Your task to perform on an android device: open a new tab in the chrome app Image 0: 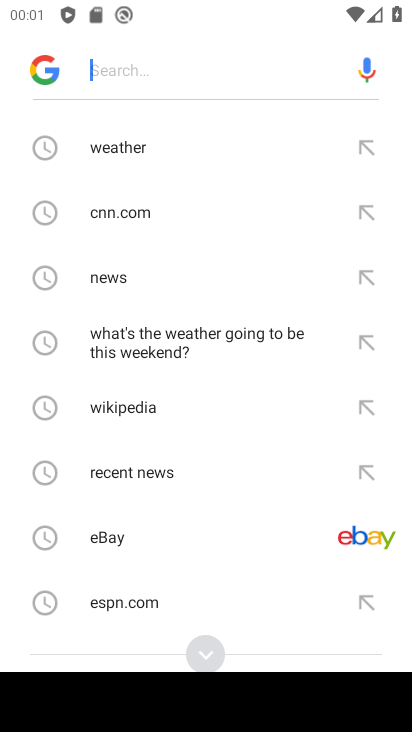
Step 0: press back button
Your task to perform on an android device: open a new tab in the chrome app Image 1: 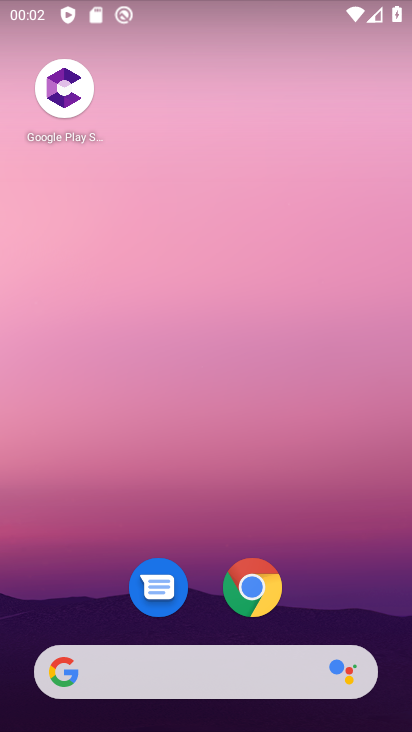
Step 1: click (265, 599)
Your task to perform on an android device: open a new tab in the chrome app Image 2: 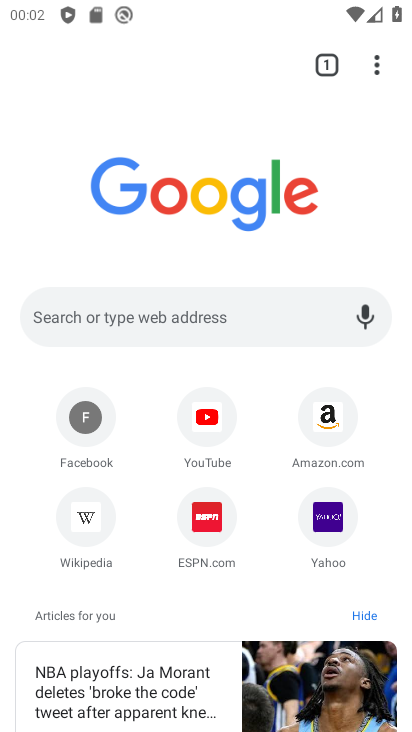
Step 2: click (377, 60)
Your task to perform on an android device: open a new tab in the chrome app Image 3: 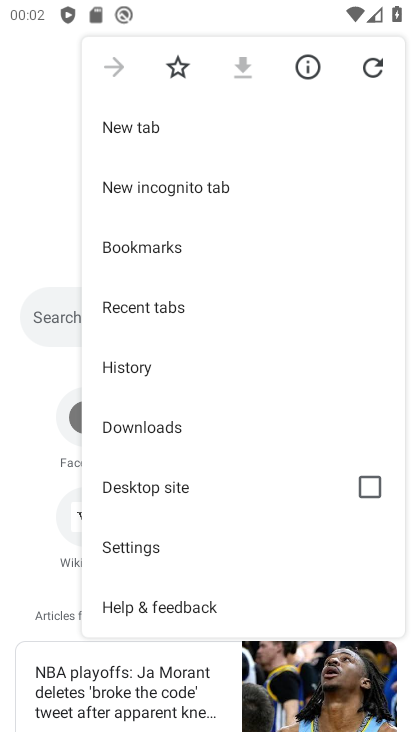
Step 3: click (141, 128)
Your task to perform on an android device: open a new tab in the chrome app Image 4: 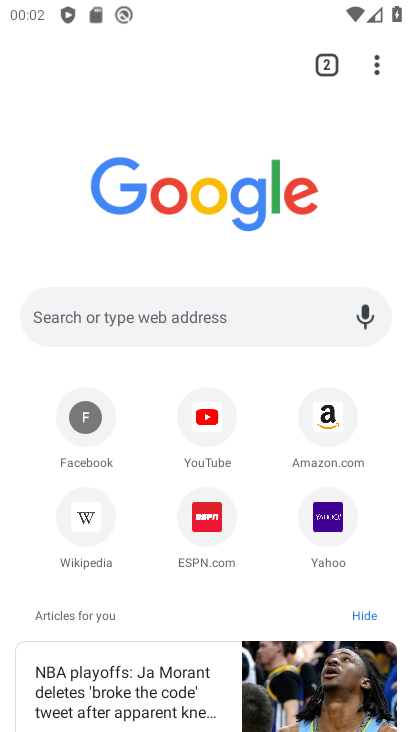
Step 4: task complete